Your task to perform on an android device: turn off priority inbox in the gmail app Image 0: 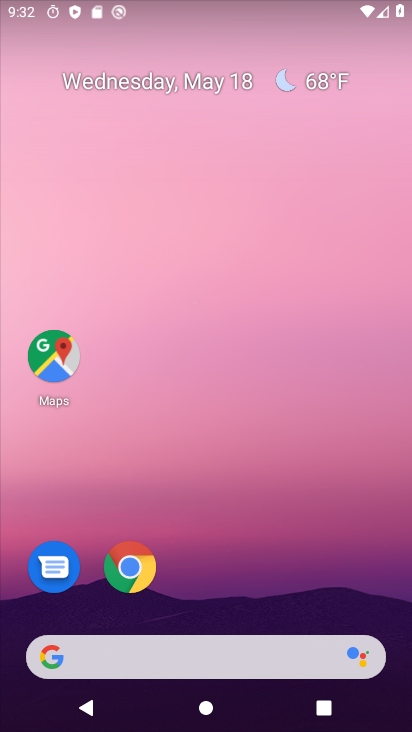
Step 0: drag from (273, 616) to (327, 156)
Your task to perform on an android device: turn off priority inbox in the gmail app Image 1: 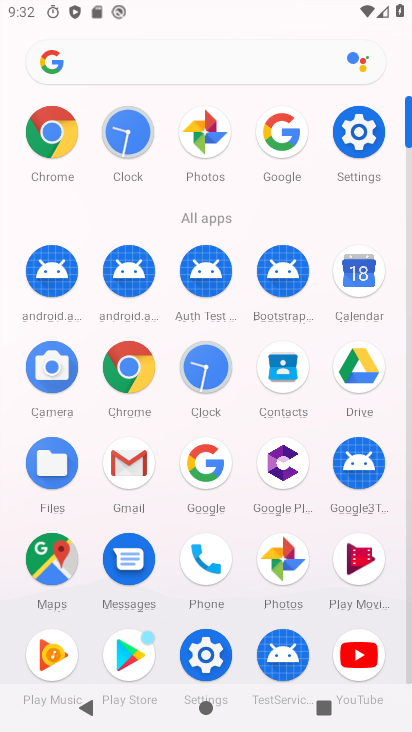
Step 1: drag from (137, 460) to (71, 233)
Your task to perform on an android device: turn off priority inbox in the gmail app Image 2: 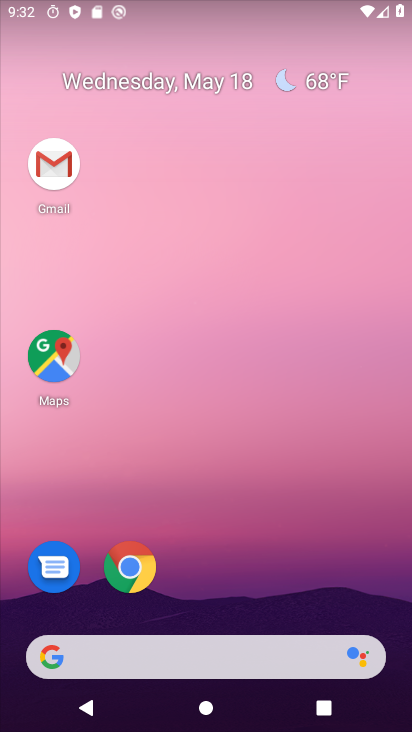
Step 2: click (71, 201)
Your task to perform on an android device: turn off priority inbox in the gmail app Image 3: 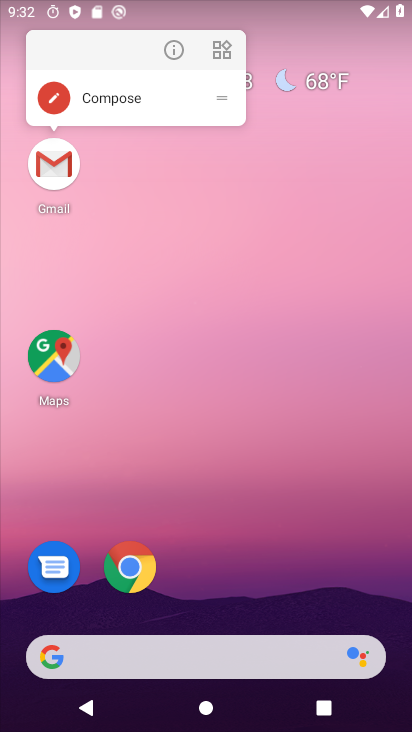
Step 3: click (58, 180)
Your task to perform on an android device: turn off priority inbox in the gmail app Image 4: 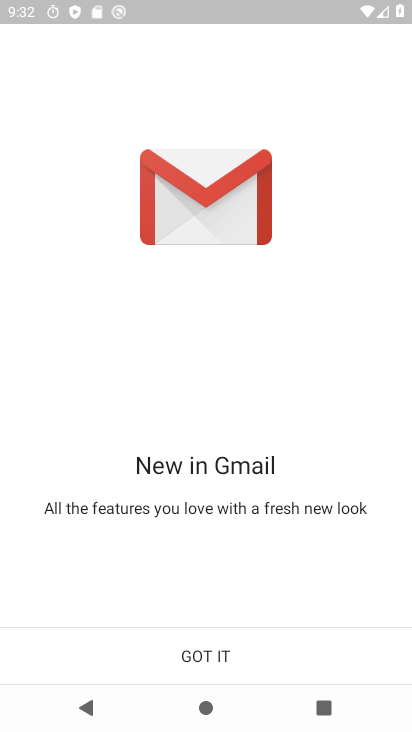
Step 4: click (257, 663)
Your task to perform on an android device: turn off priority inbox in the gmail app Image 5: 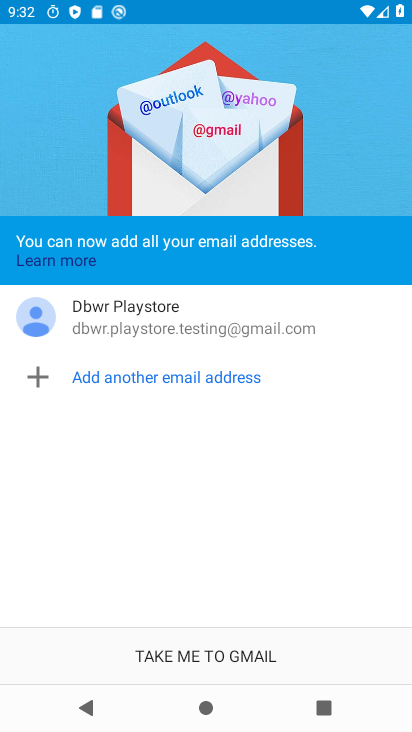
Step 5: click (257, 663)
Your task to perform on an android device: turn off priority inbox in the gmail app Image 6: 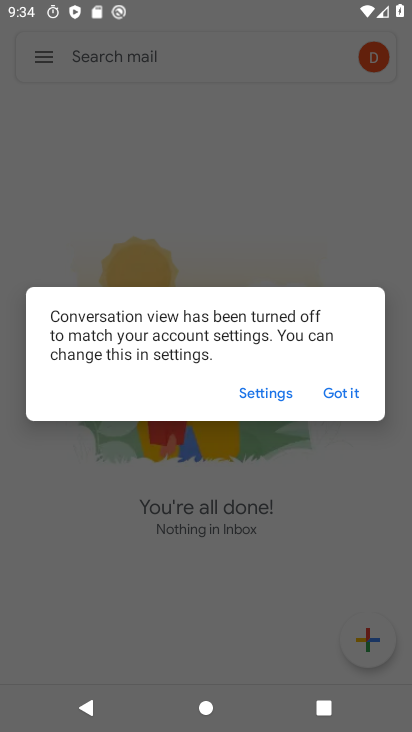
Step 6: click (350, 389)
Your task to perform on an android device: turn off priority inbox in the gmail app Image 7: 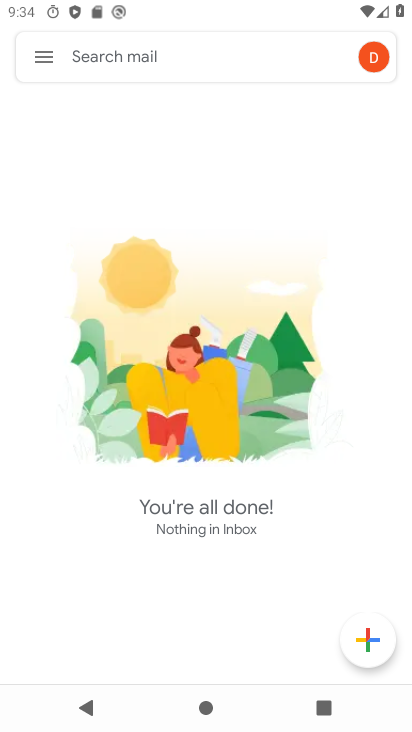
Step 7: click (42, 67)
Your task to perform on an android device: turn off priority inbox in the gmail app Image 8: 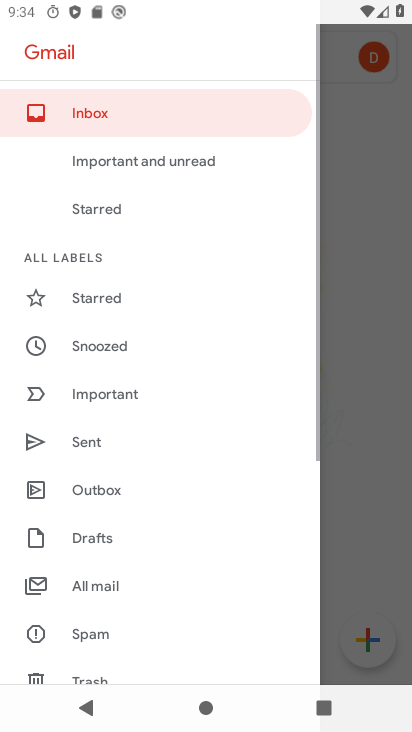
Step 8: drag from (175, 456) to (234, 33)
Your task to perform on an android device: turn off priority inbox in the gmail app Image 9: 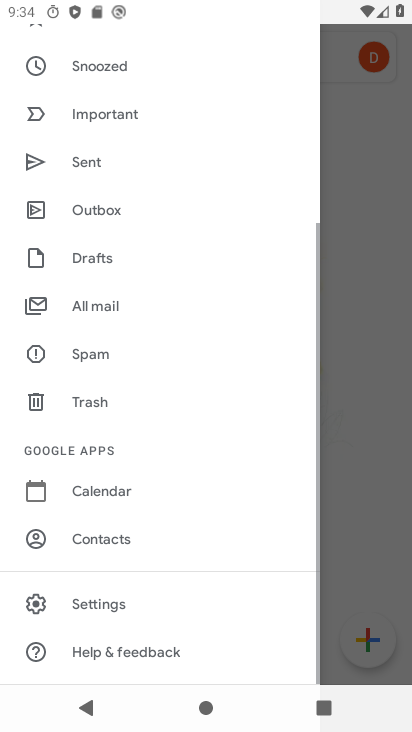
Step 9: click (138, 598)
Your task to perform on an android device: turn off priority inbox in the gmail app Image 10: 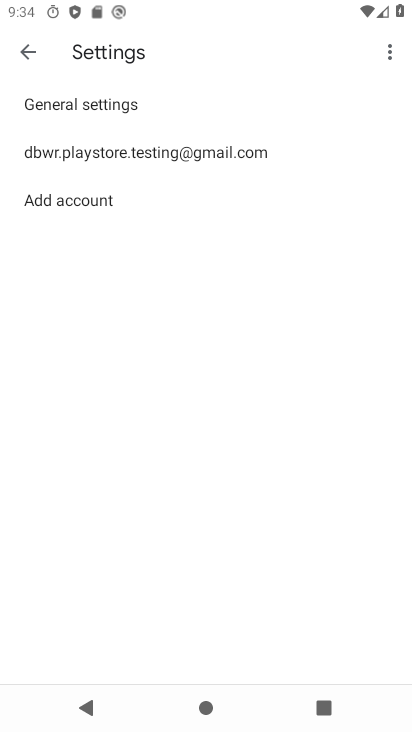
Step 10: click (240, 141)
Your task to perform on an android device: turn off priority inbox in the gmail app Image 11: 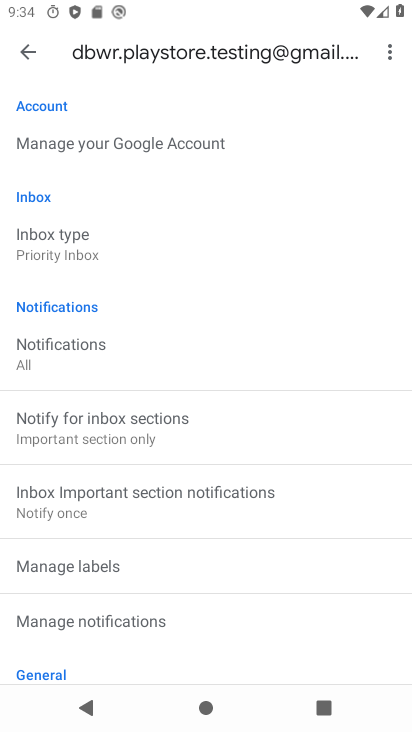
Step 11: click (51, 240)
Your task to perform on an android device: turn off priority inbox in the gmail app Image 12: 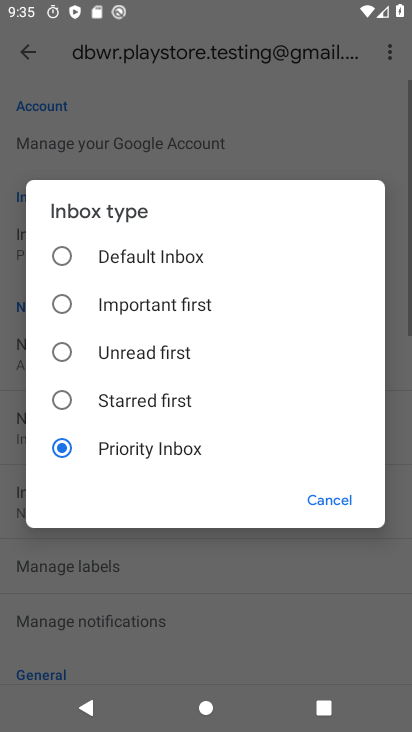
Step 12: click (191, 250)
Your task to perform on an android device: turn off priority inbox in the gmail app Image 13: 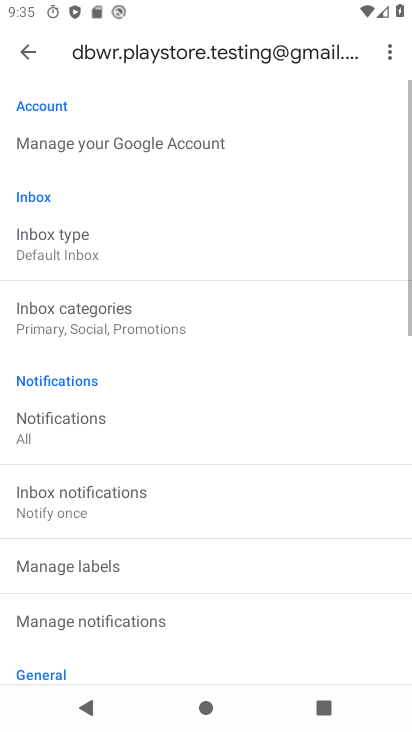
Step 13: task complete